Your task to perform on an android device: turn vacation reply on in the gmail app Image 0: 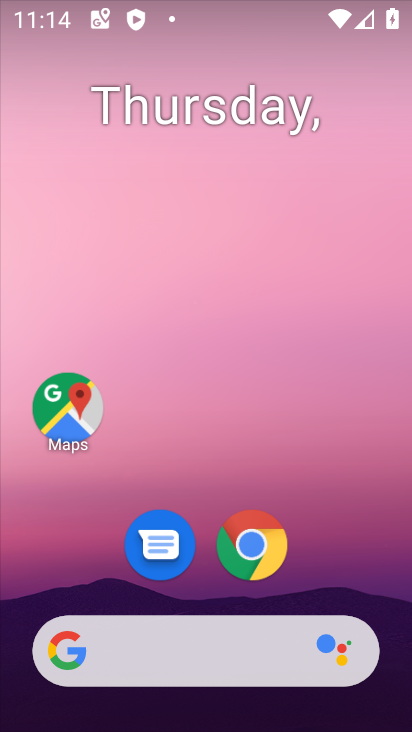
Step 0: drag from (310, 572) to (314, 111)
Your task to perform on an android device: turn vacation reply on in the gmail app Image 1: 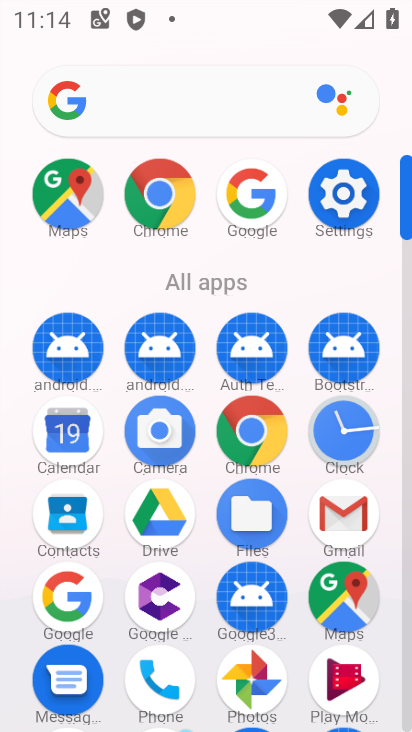
Step 1: click (341, 514)
Your task to perform on an android device: turn vacation reply on in the gmail app Image 2: 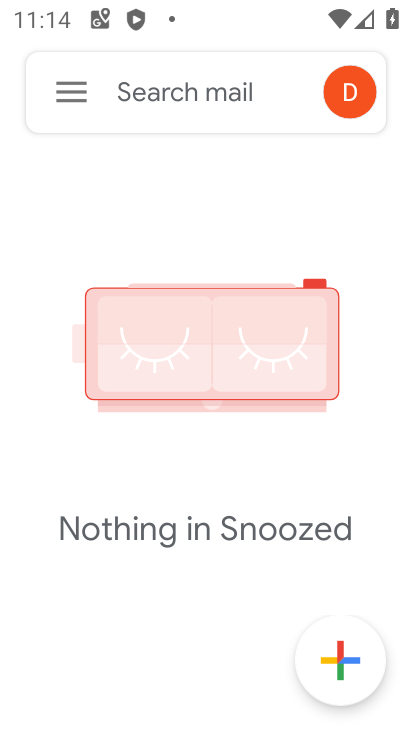
Step 2: click (62, 102)
Your task to perform on an android device: turn vacation reply on in the gmail app Image 3: 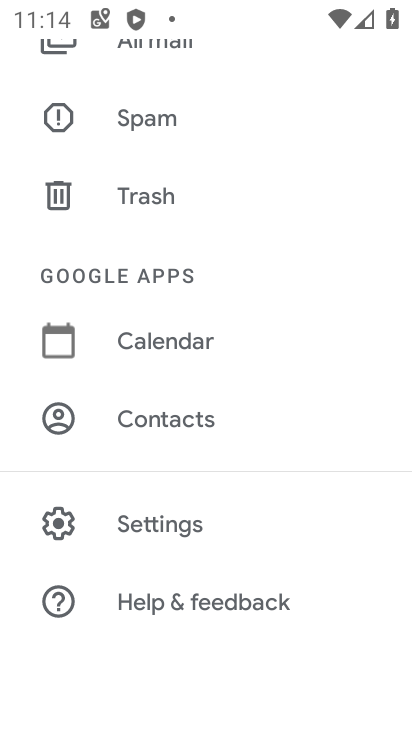
Step 3: click (141, 528)
Your task to perform on an android device: turn vacation reply on in the gmail app Image 4: 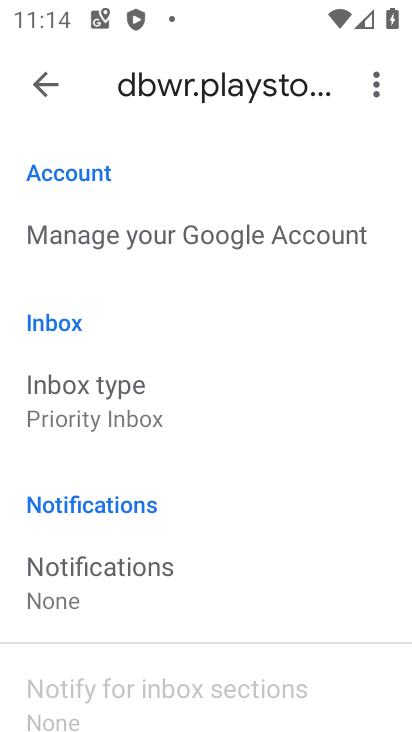
Step 4: drag from (182, 521) to (192, 197)
Your task to perform on an android device: turn vacation reply on in the gmail app Image 5: 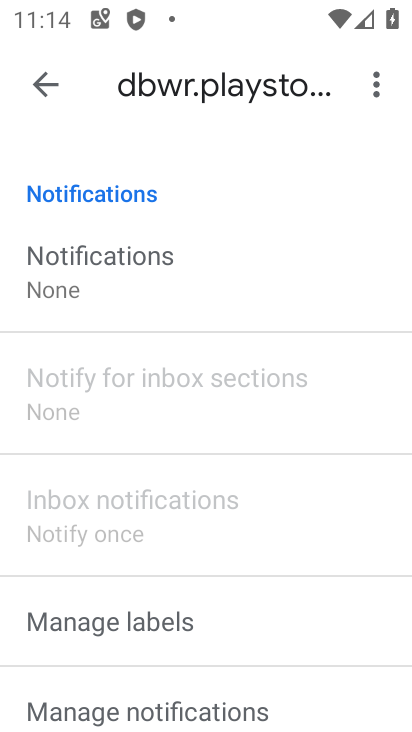
Step 5: drag from (166, 549) to (179, 119)
Your task to perform on an android device: turn vacation reply on in the gmail app Image 6: 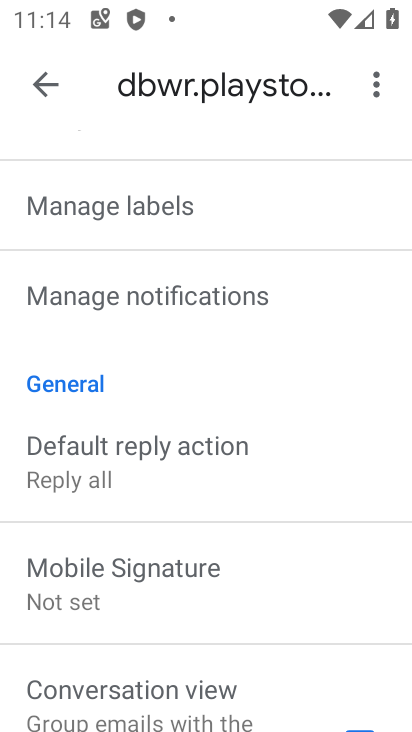
Step 6: drag from (164, 621) to (208, 234)
Your task to perform on an android device: turn vacation reply on in the gmail app Image 7: 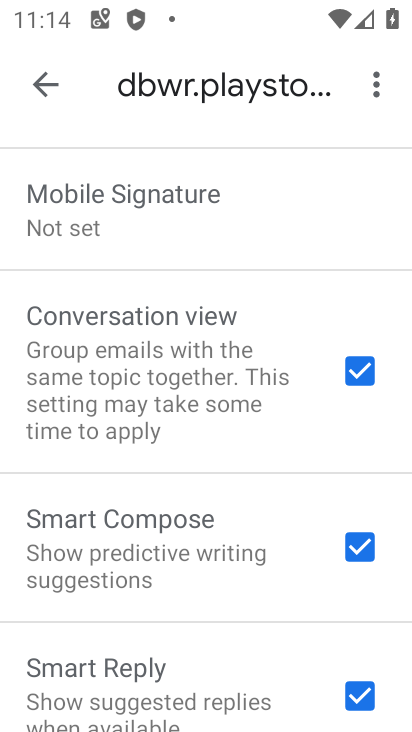
Step 7: drag from (165, 589) to (195, 323)
Your task to perform on an android device: turn vacation reply on in the gmail app Image 8: 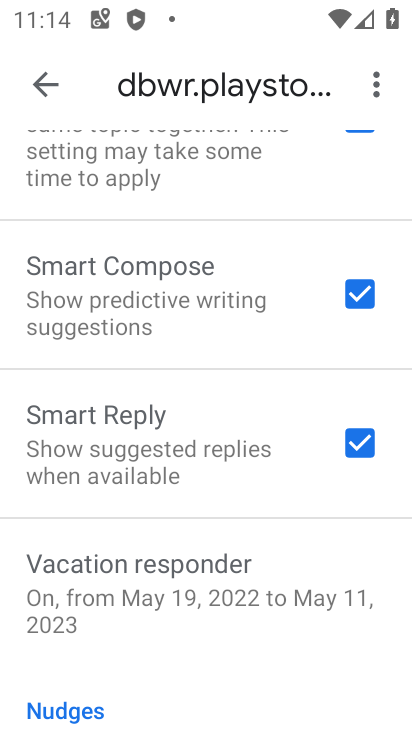
Step 8: click (230, 575)
Your task to perform on an android device: turn vacation reply on in the gmail app Image 9: 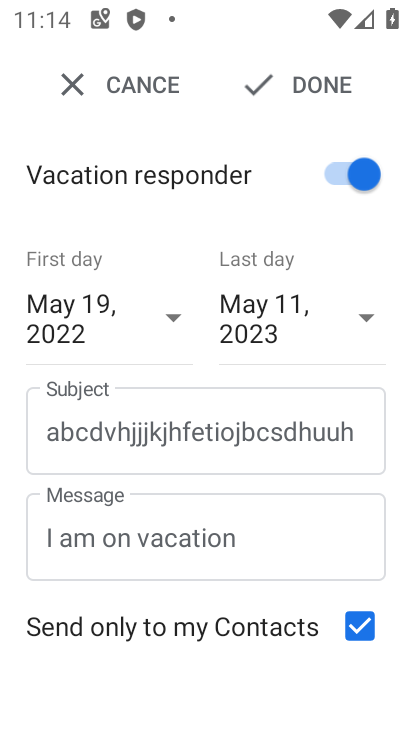
Step 9: task complete